Your task to perform on an android device: Turn on the flashlight Image 0: 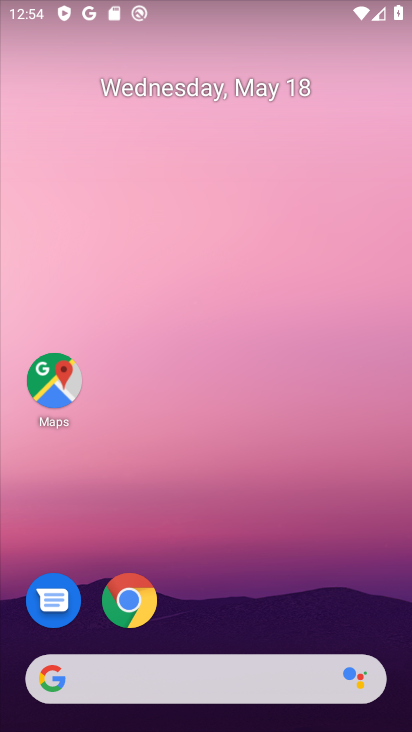
Step 0: drag from (185, 639) to (192, 249)
Your task to perform on an android device: Turn on the flashlight Image 1: 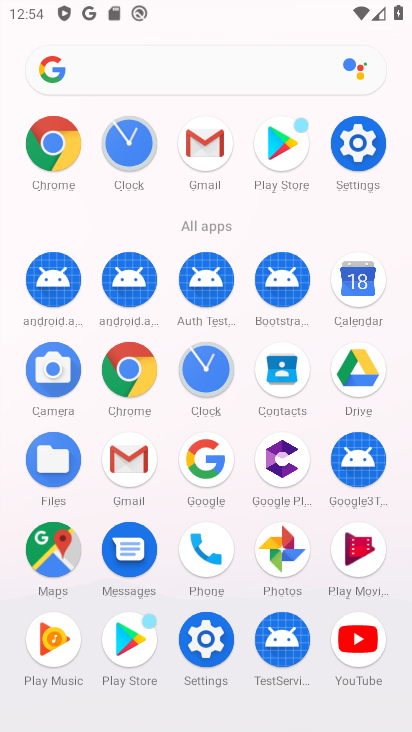
Step 1: click (360, 144)
Your task to perform on an android device: Turn on the flashlight Image 2: 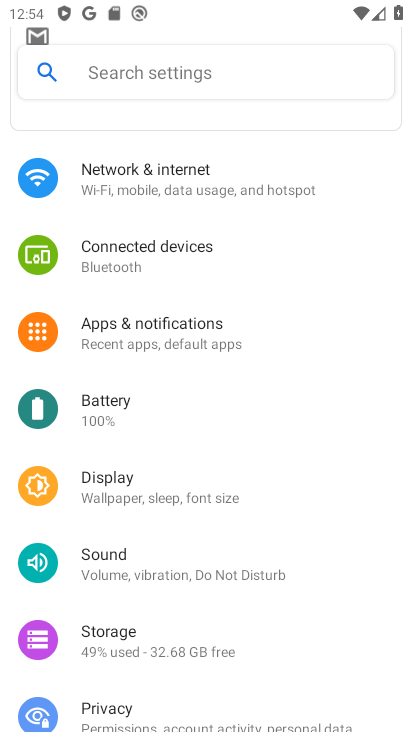
Step 2: click (133, 490)
Your task to perform on an android device: Turn on the flashlight Image 3: 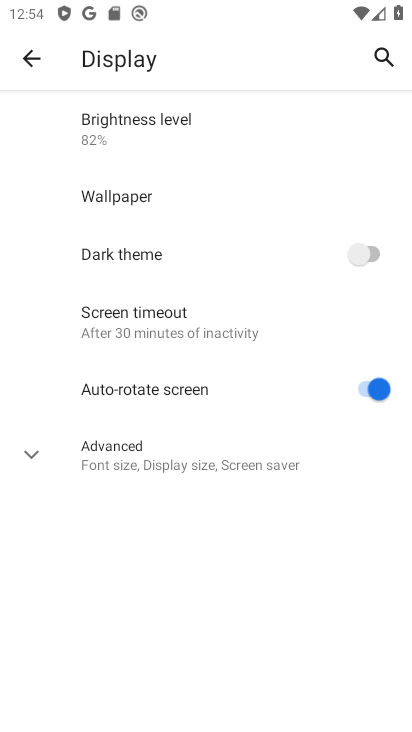
Step 3: task complete